Your task to perform on an android device: Open Google Maps and go to "Timeline" Image 0: 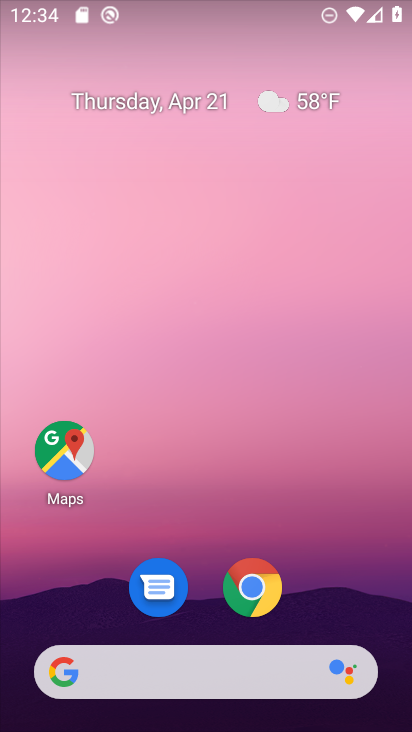
Step 0: click (304, 346)
Your task to perform on an android device: Open Google Maps and go to "Timeline" Image 1: 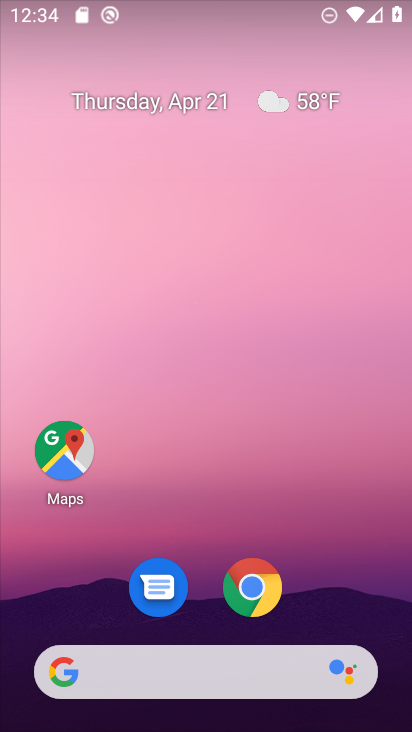
Step 1: drag from (205, 629) to (337, 32)
Your task to perform on an android device: Open Google Maps and go to "Timeline" Image 2: 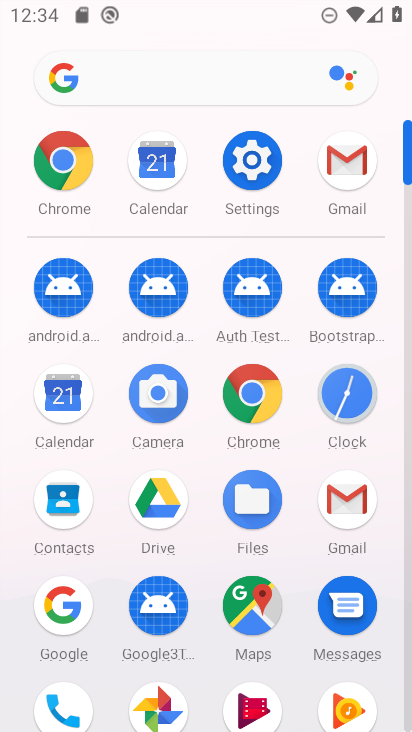
Step 2: click (249, 603)
Your task to perform on an android device: Open Google Maps and go to "Timeline" Image 3: 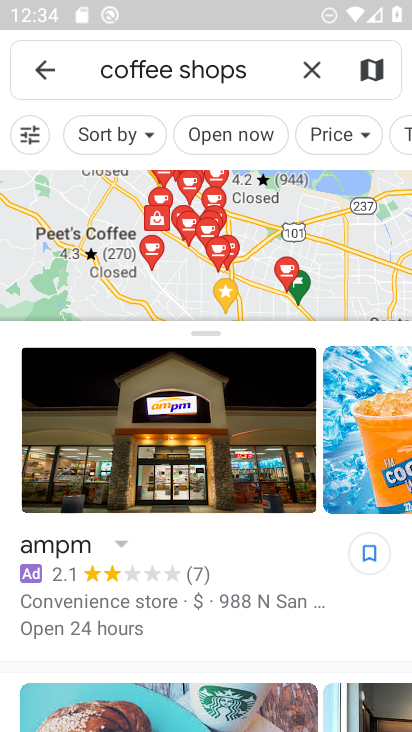
Step 3: click (38, 68)
Your task to perform on an android device: Open Google Maps and go to "Timeline" Image 4: 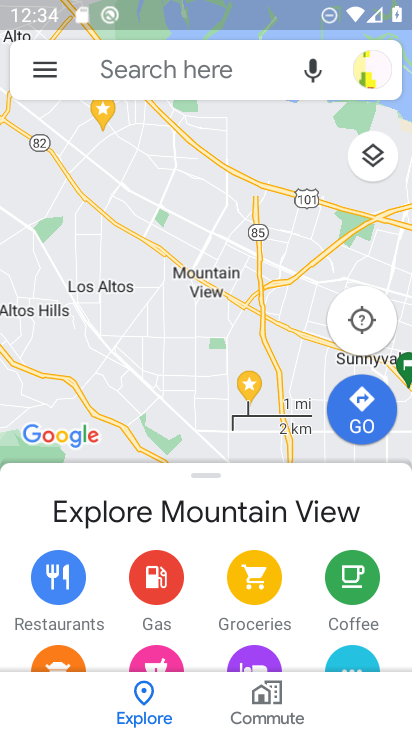
Step 4: click (44, 62)
Your task to perform on an android device: Open Google Maps and go to "Timeline" Image 5: 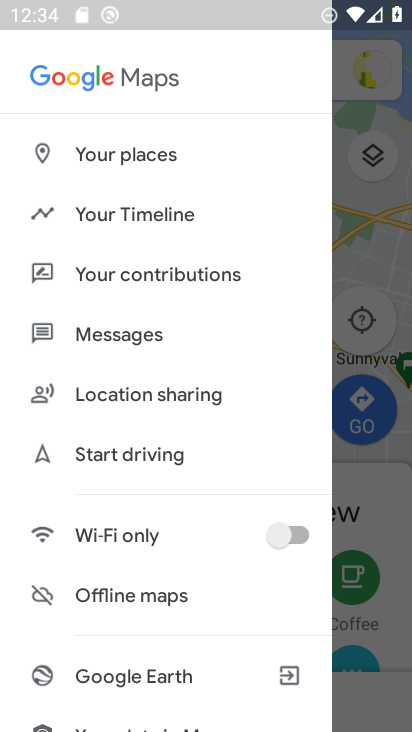
Step 5: click (115, 213)
Your task to perform on an android device: Open Google Maps and go to "Timeline" Image 6: 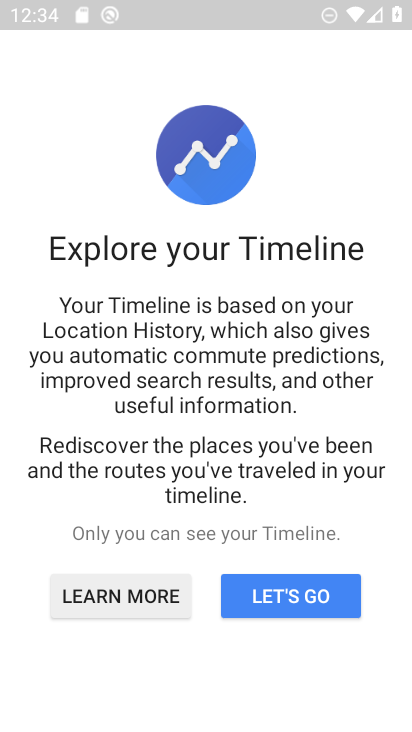
Step 6: task complete